Your task to perform on an android device: check storage Image 0: 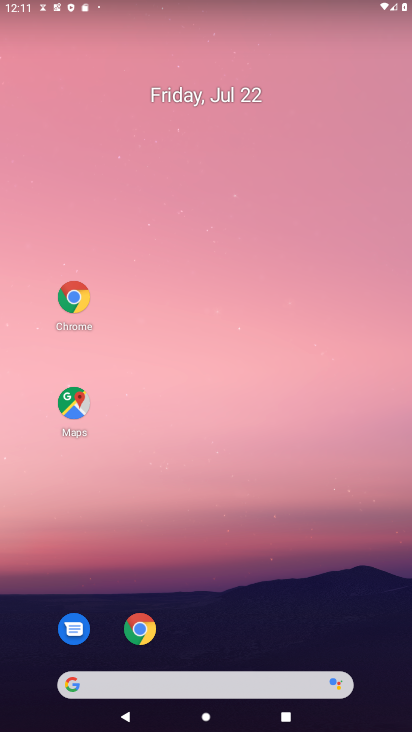
Step 0: drag from (239, 673) to (214, 5)
Your task to perform on an android device: check storage Image 1: 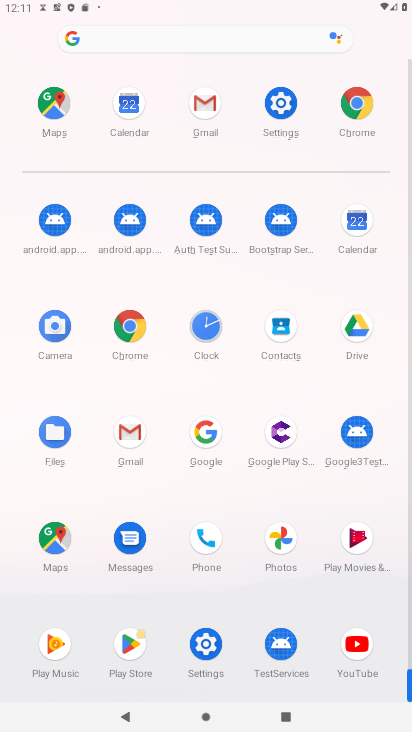
Step 1: drag from (237, 556) to (229, 70)
Your task to perform on an android device: check storage Image 2: 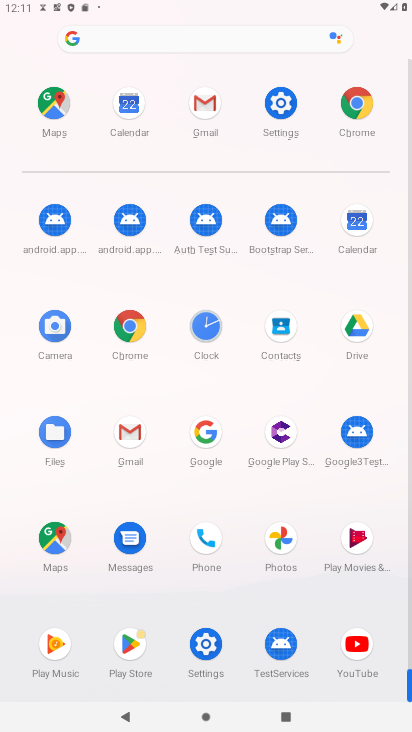
Step 2: drag from (262, 365) to (210, 314)
Your task to perform on an android device: check storage Image 3: 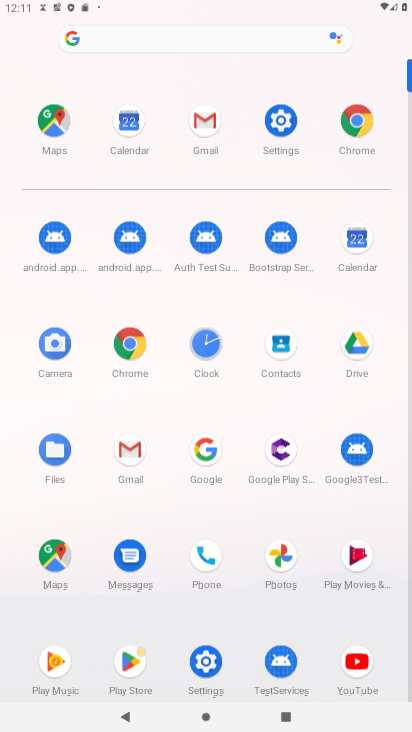
Step 3: click (128, 297)
Your task to perform on an android device: check storage Image 4: 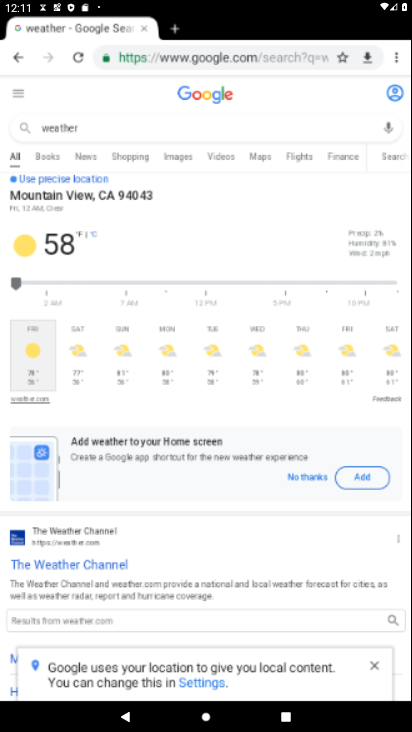
Step 4: click (202, 655)
Your task to perform on an android device: check storage Image 5: 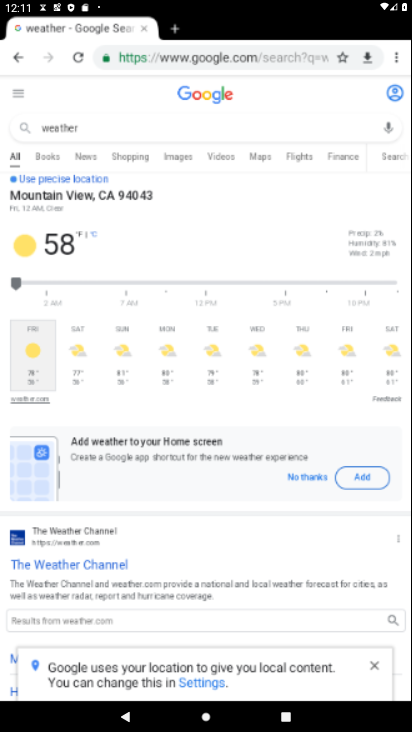
Step 5: click (202, 655)
Your task to perform on an android device: check storage Image 6: 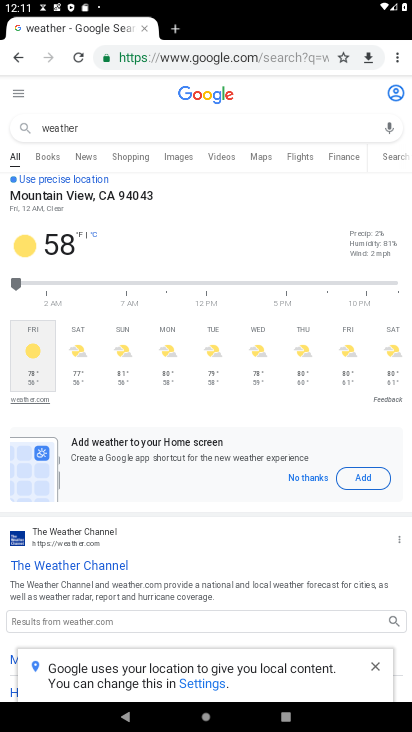
Step 6: press back button
Your task to perform on an android device: check storage Image 7: 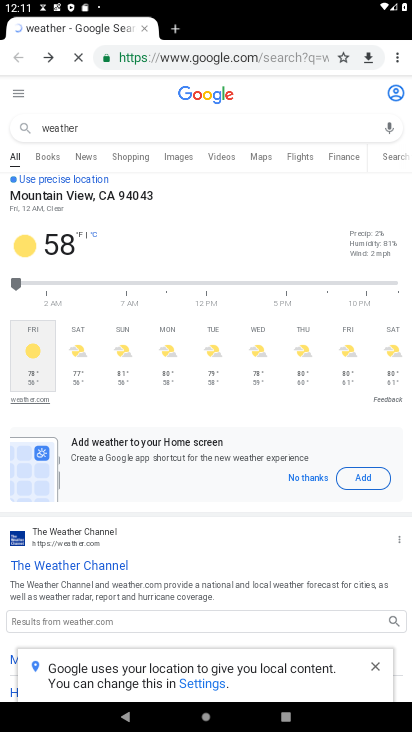
Step 7: press back button
Your task to perform on an android device: check storage Image 8: 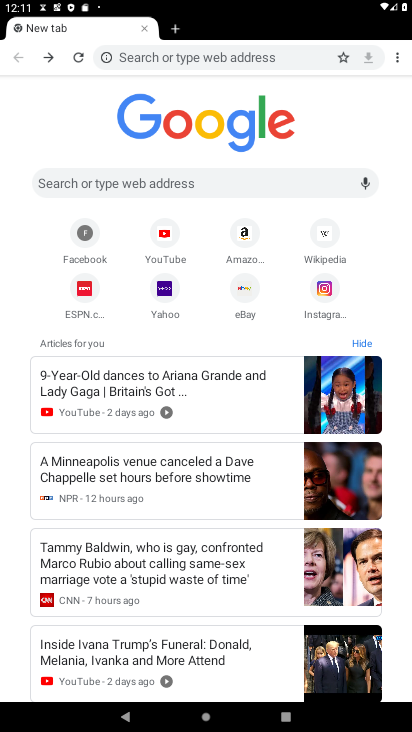
Step 8: press back button
Your task to perform on an android device: check storage Image 9: 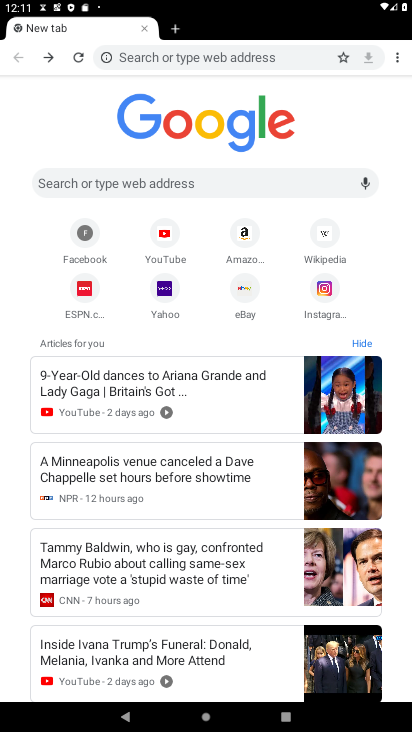
Step 9: press home button
Your task to perform on an android device: check storage Image 10: 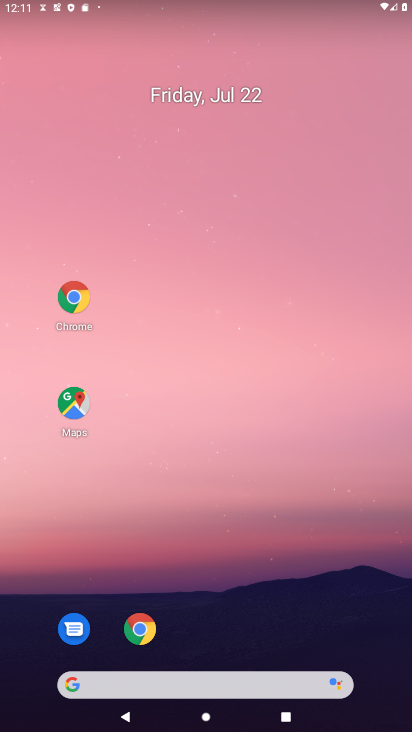
Step 10: drag from (226, 483) to (237, 143)
Your task to perform on an android device: check storage Image 11: 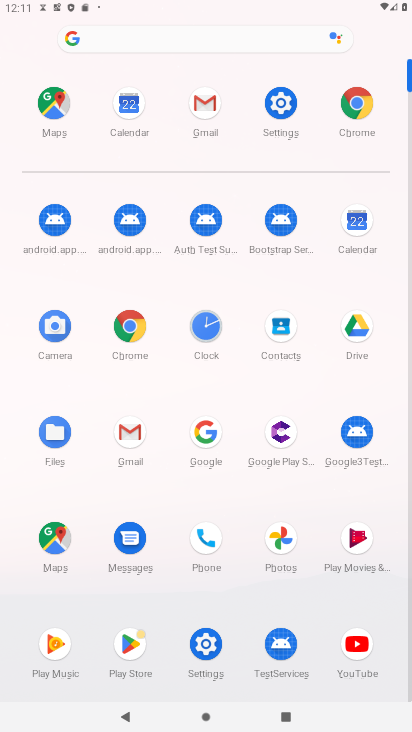
Step 11: drag from (238, 604) to (234, 56)
Your task to perform on an android device: check storage Image 12: 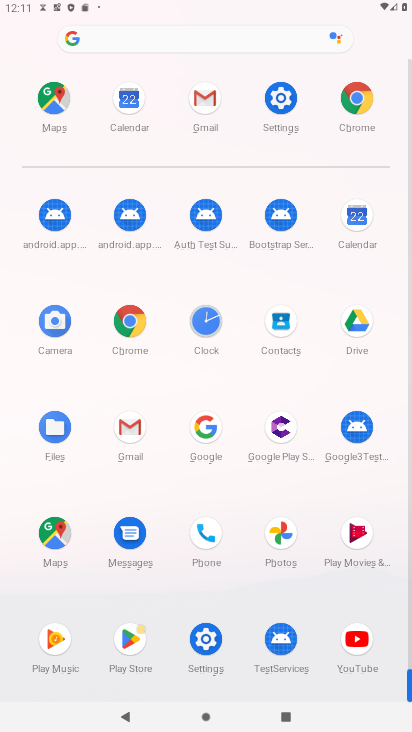
Step 12: click (282, 100)
Your task to perform on an android device: check storage Image 13: 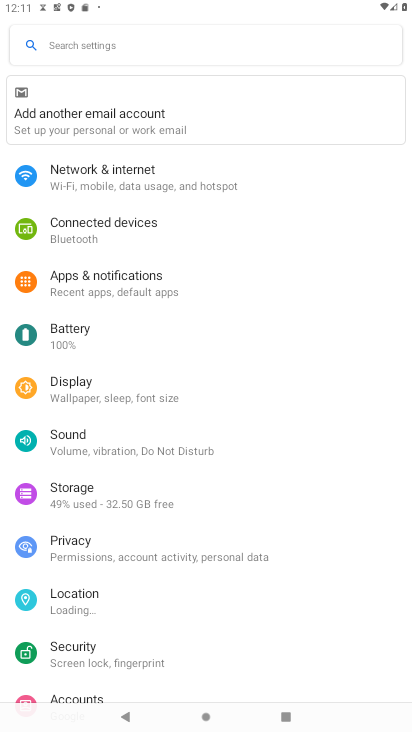
Step 13: click (74, 480)
Your task to perform on an android device: check storage Image 14: 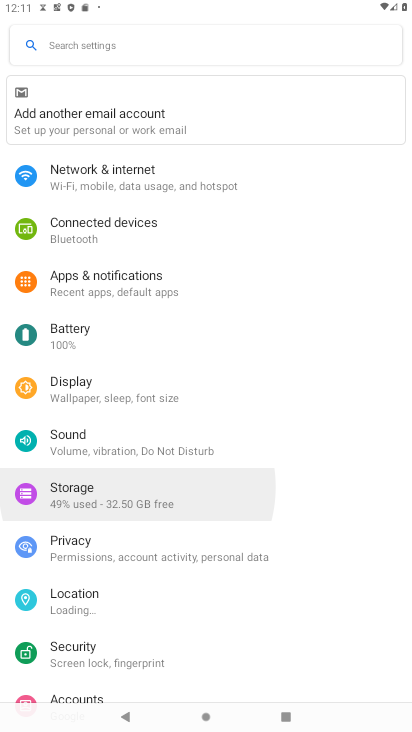
Step 14: click (74, 482)
Your task to perform on an android device: check storage Image 15: 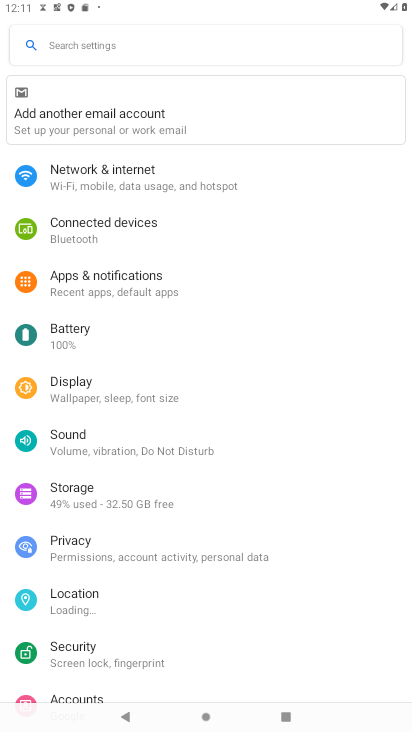
Step 15: click (76, 485)
Your task to perform on an android device: check storage Image 16: 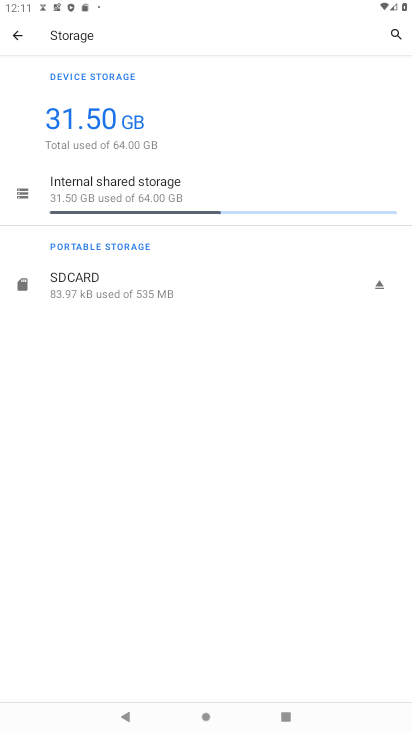
Step 16: click (84, 479)
Your task to perform on an android device: check storage Image 17: 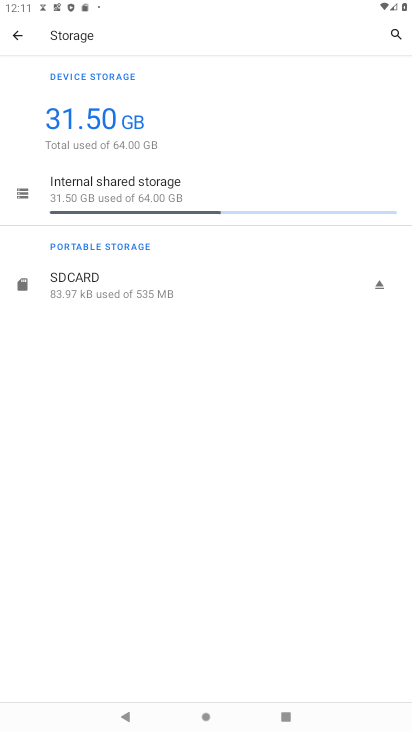
Step 17: task complete